Your task to perform on an android device: Show me productivity apps on the Play Store Image 0: 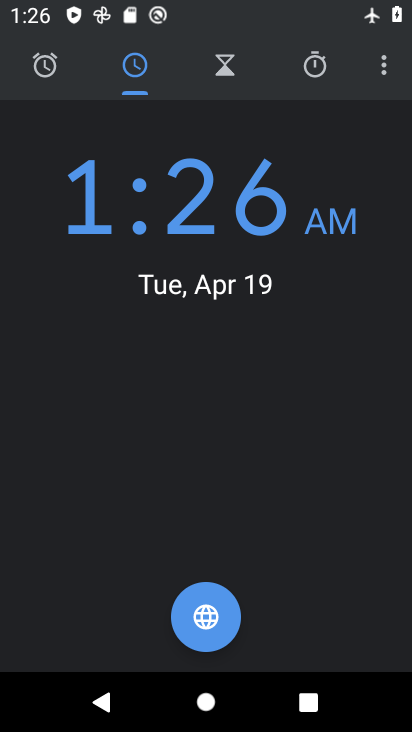
Step 0: press home button
Your task to perform on an android device: Show me productivity apps on the Play Store Image 1: 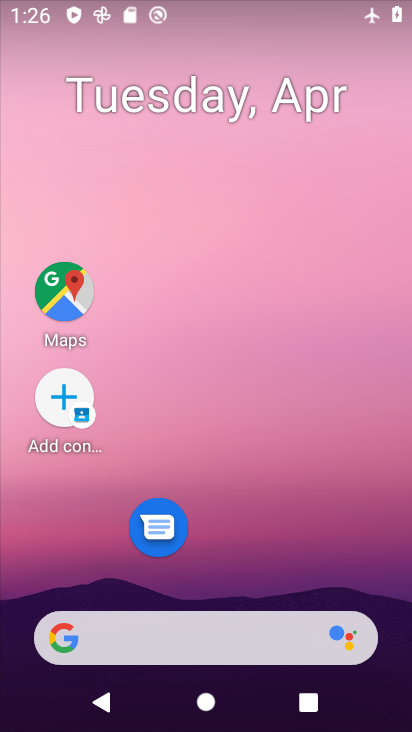
Step 1: drag from (251, 549) to (300, 63)
Your task to perform on an android device: Show me productivity apps on the Play Store Image 2: 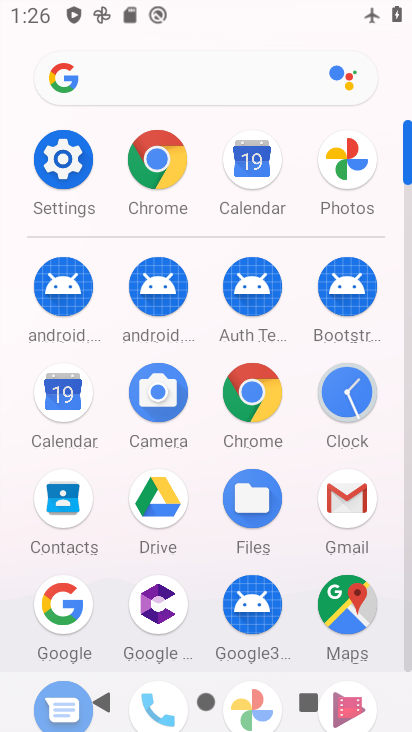
Step 2: drag from (195, 575) to (219, 346)
Your task to perform on an android device: Show me productivity apps on the Play Store Image 3: 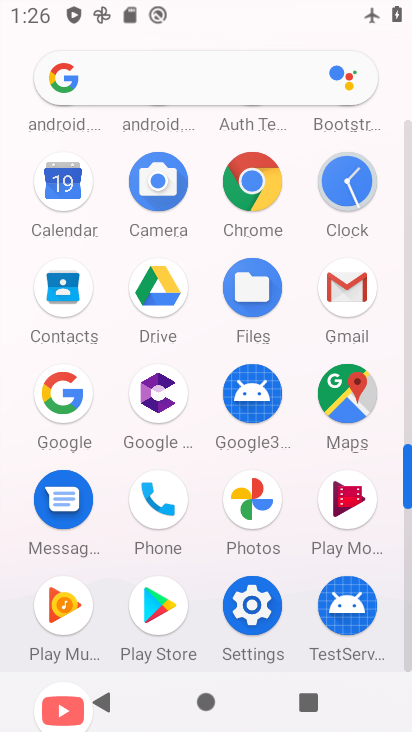
Step 3: drag from (209, 495) to (245, 348)
Your task to perform on an android device: Show me productivity apps on the Play Store Image 4: 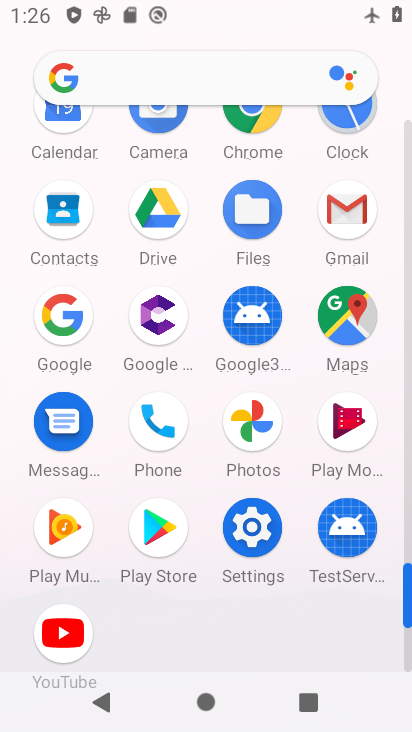
Step 4: click (158, 527)
Your task to perform on an android device: Show me productivity apps on the Play Store Image 5: 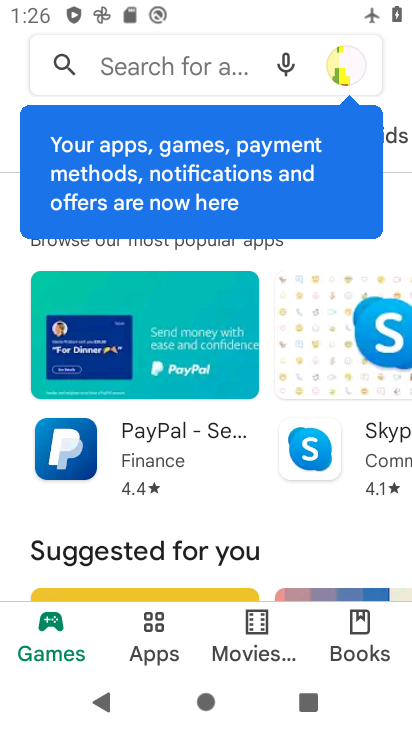
Step 5: click (154, 625)
Your task to perform on an android device: Show me productivity apps on the Play Store Image 6: 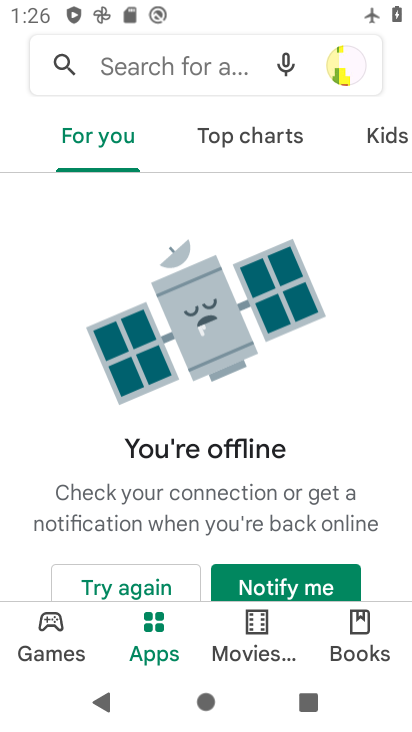
Step 6: drag from (331, 140) to (155, 116)
Your task to perform on an android device: Show me productivity apps on the Play Store Image 7: 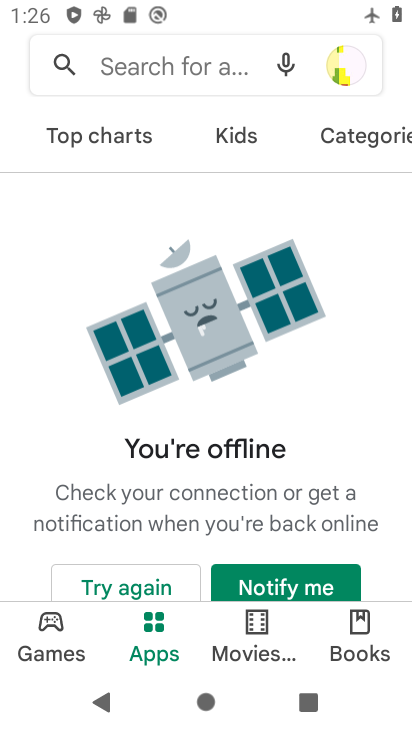
Step 7: click (361, 132)
Your task to perform on an android device: Show me productivity apps on the Play Store Image 8: 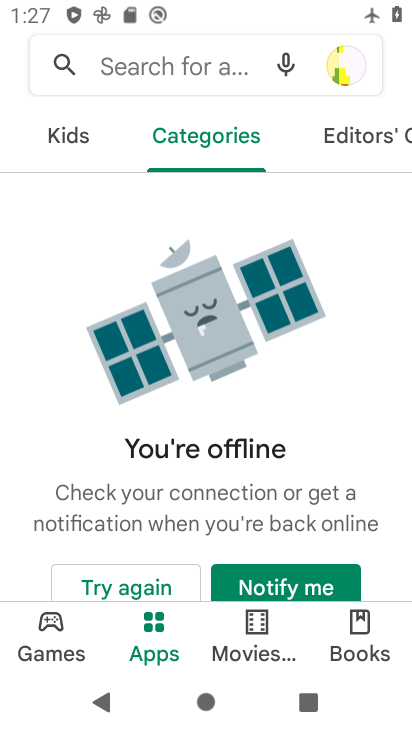
Step 8: task complete